Your task to perform on an android device: Open Wikipedia Image 0: 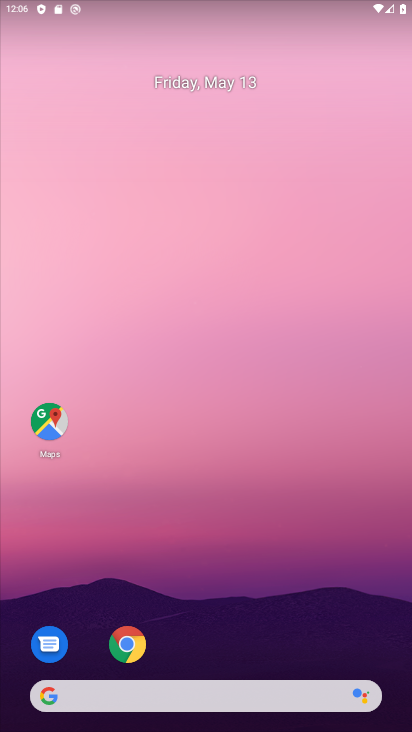
Step 0: click (122, 648)
Your task to perform on an android device: Open Wikipedia Image 1: 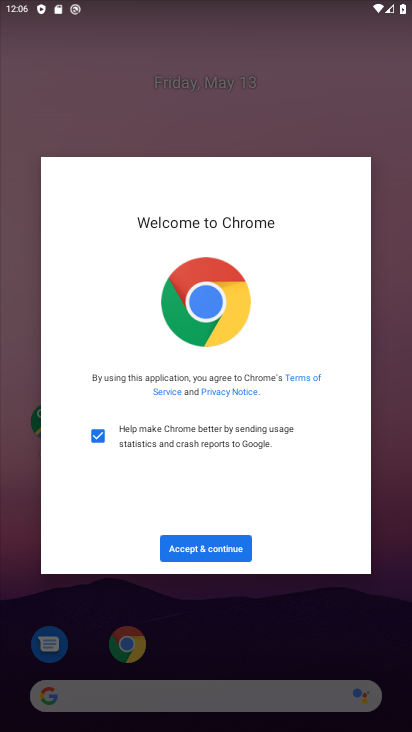
Step 1: click (234, 546)
Your task to perform on an android device: Open Wikipedia Image 2: 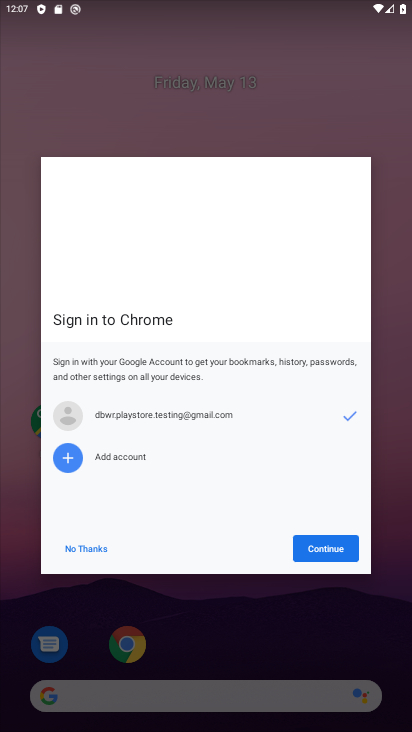
Step 2: click (337, 547)
Your task to perform on an android device: Open Wikipedia Image 3: 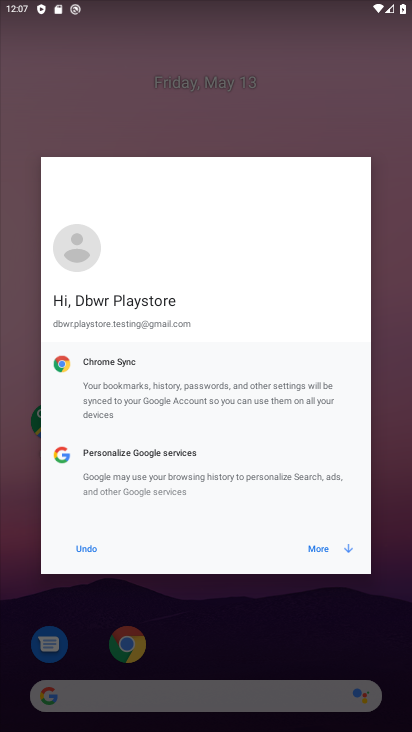
Step 3: click (337, 547)
Your task to perform on an android device: Open Wikipedia Image 4: 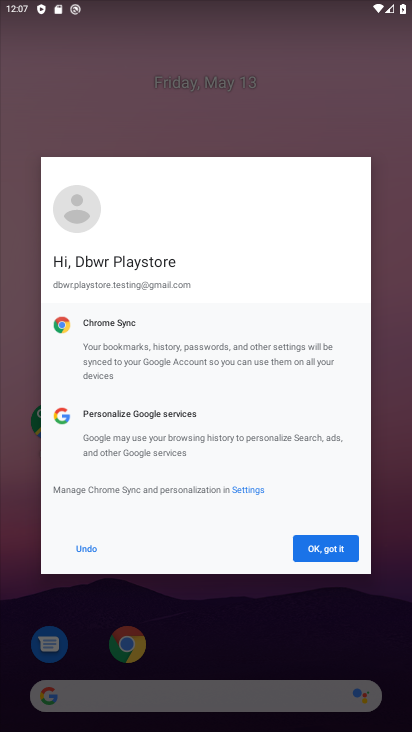
Step 4: click (337, 547)
Your task to perform on an android device: Open Wikipedia Image 5: 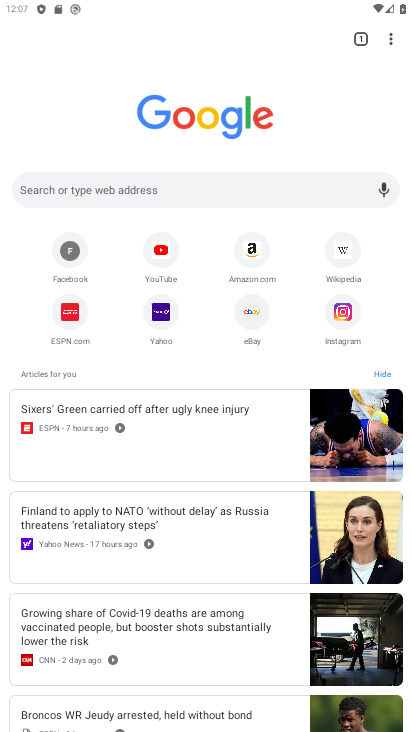
Step 5: click (350, 251)
Your task to perform on an android device: Open Wikipedia Image 6: 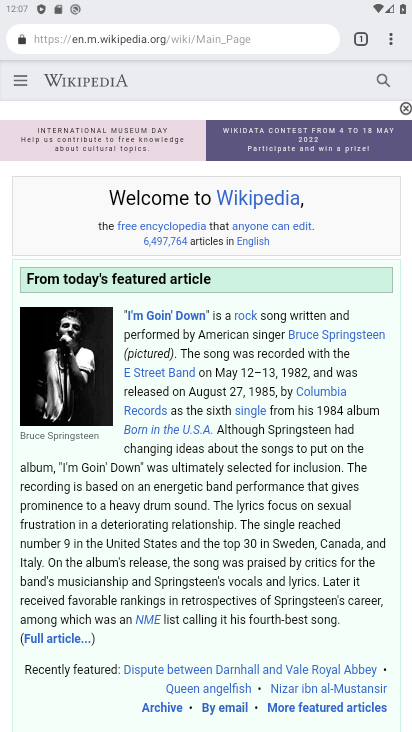
Step 6: task complete